Your task to perform on an android device: What's the weather going to be tomorrow? Image 0: 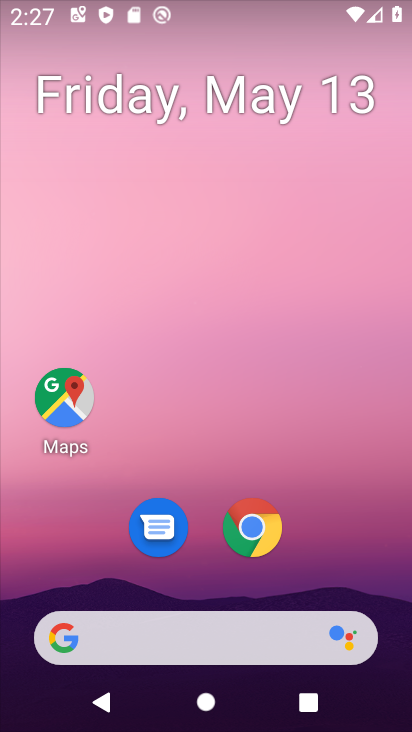
Step 0: click (196, 649)
Your task to perform on an android device: What's the weather going to be tomorrow? Image 1: 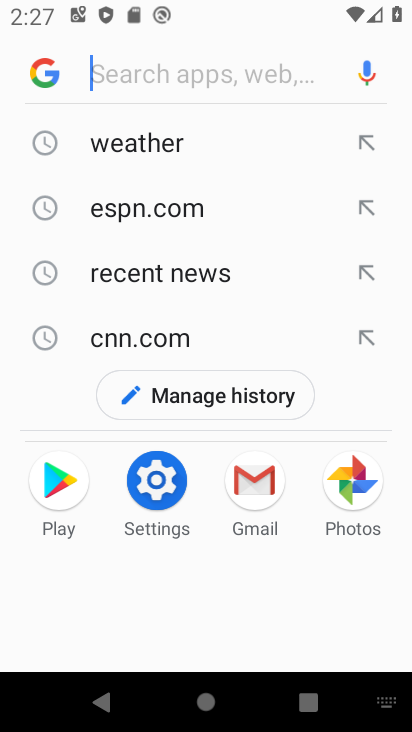
Step 1: click (172, 148)
Your task to perform on an android device: What's the weather going to be tomorrow? Image 2: 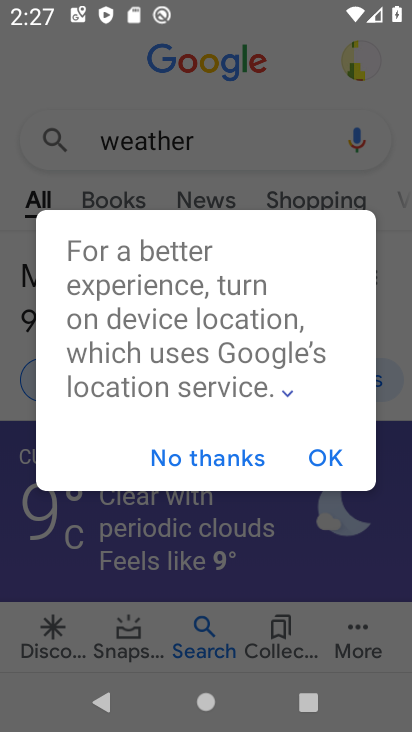
Step 2: click (326, 456)
Your task to perform on an android device: What's the weather going to be tomorrow? Image 3: 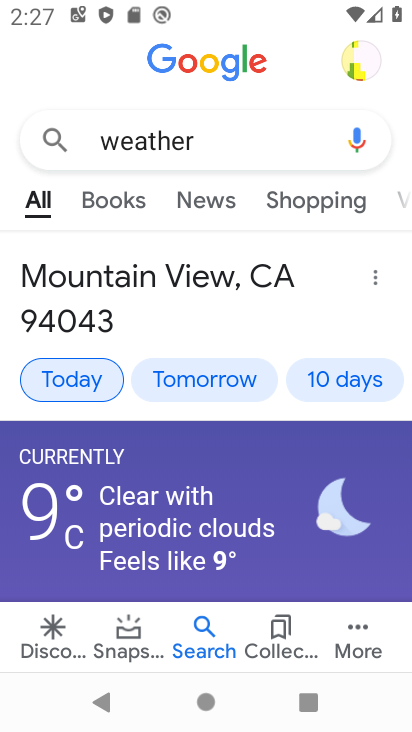
Step 3: task complete